Your task to perform on an android device: Search for Italian restaurants on Maps Image 0: 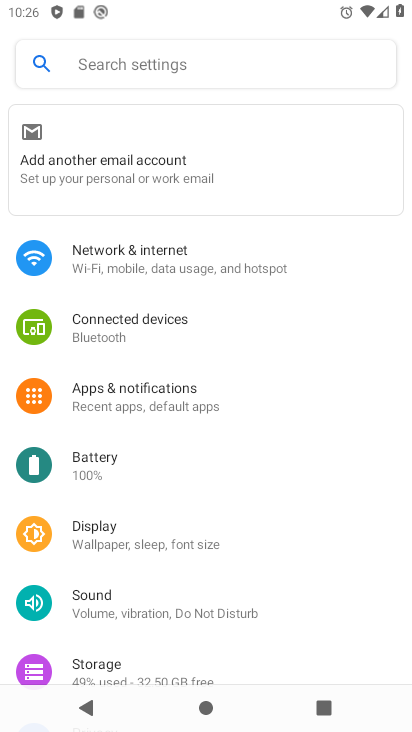
Step 0: press home button
Your task to perform on an android device: Search for Italian restaurants on Maps Image 1: 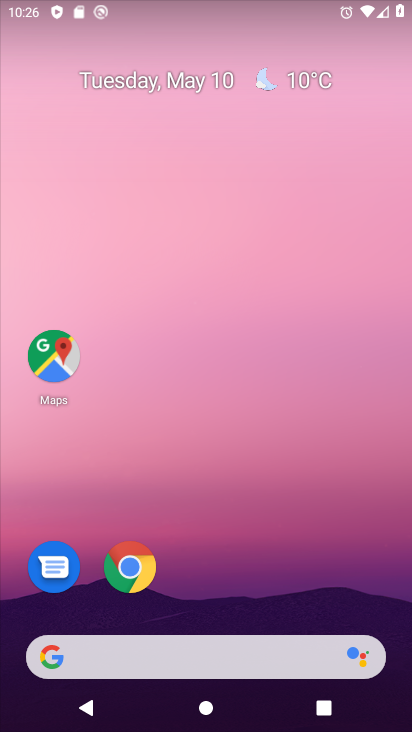
Step 1: click (54, 360)
Your task to perform on an android device: Search for Italian restaurants on Maps Image 2: 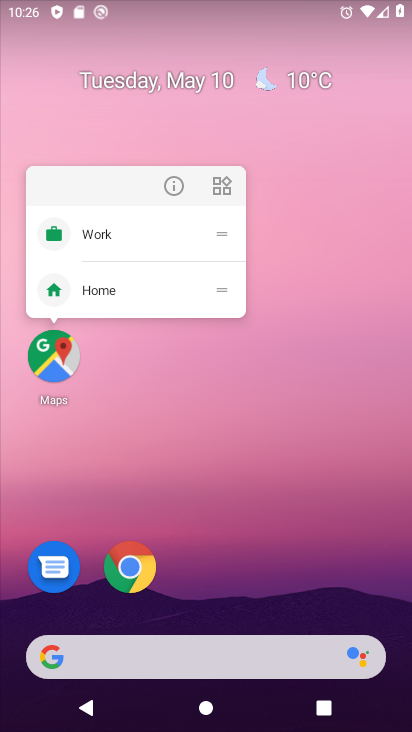
Step 2: click (49, 357)
Your task to perform on an android device: Search for Italian restaurants on Maps Image 3: 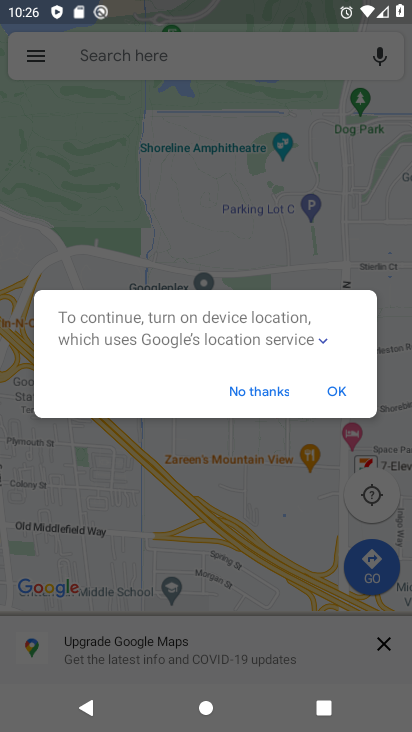
Step 3: click (256, 392)
Your task to perform on an android device: Search for Italian restaurants on Maps Image 4: 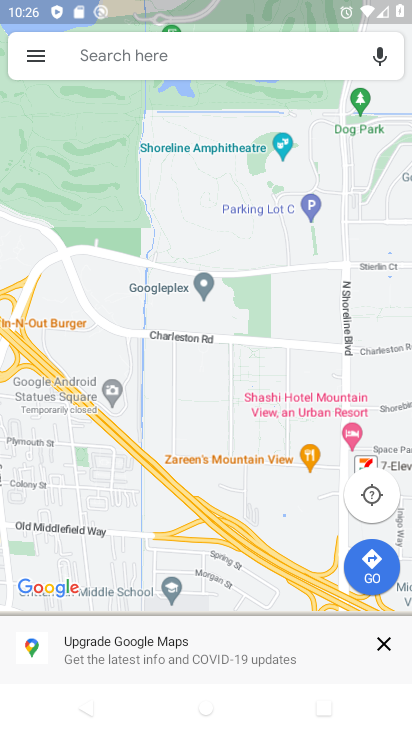
Step 4: click (97, 55)
Your task to perform on an android device: Search for Italian restaurants on Maps Image 5: 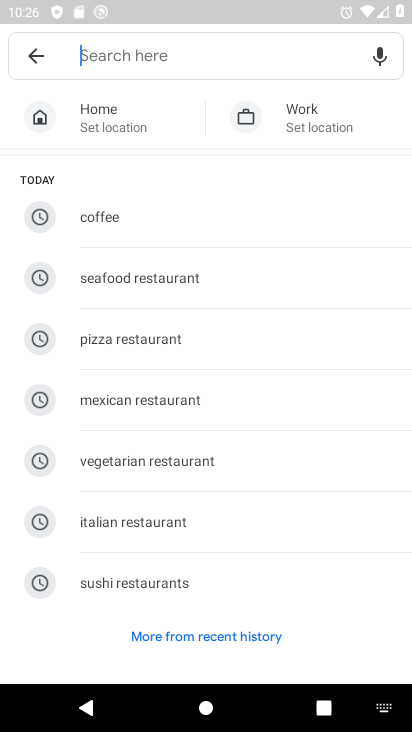
Step 5: type "italian restaurant "
Your task to perform on an android device: Search for Italian restaurants on Maps Image 6: 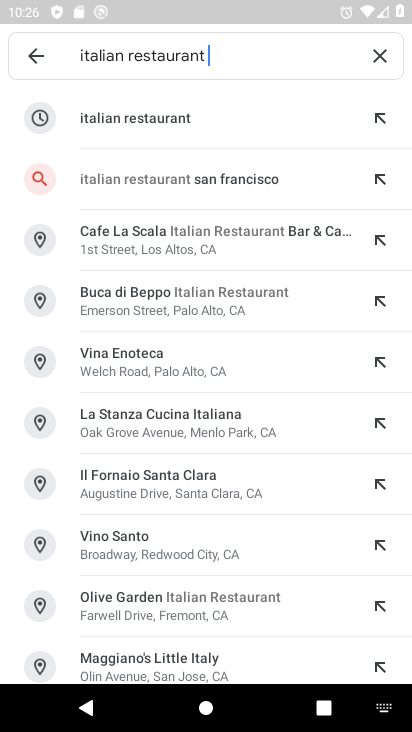
Step 6: click (122, 122)
Your task to perform on an android device: Search for Italian restaurants on Maps Image 7: 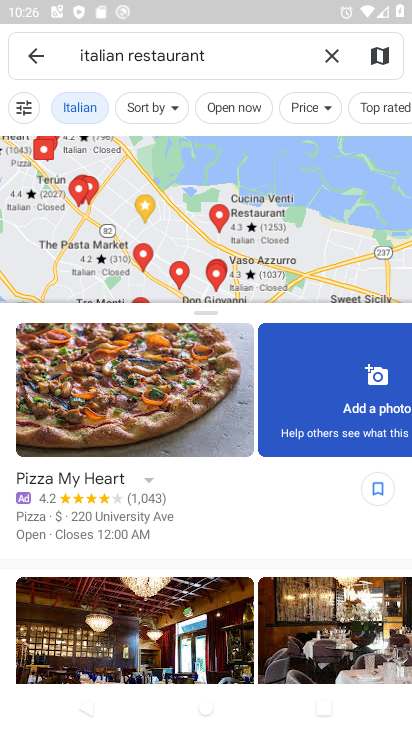
Step 7: task complete